Your task to perform on an android device: open a new tab in the chrome app Image 0: 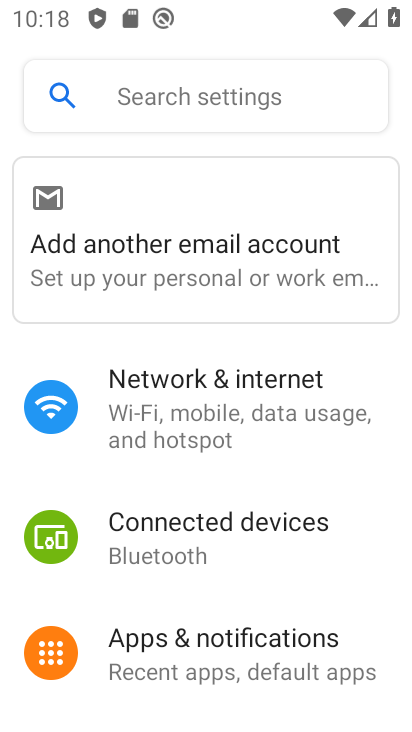
Step 0: press home button
Your task to perform on an android device: open a new tab in the chrome app Image 1: 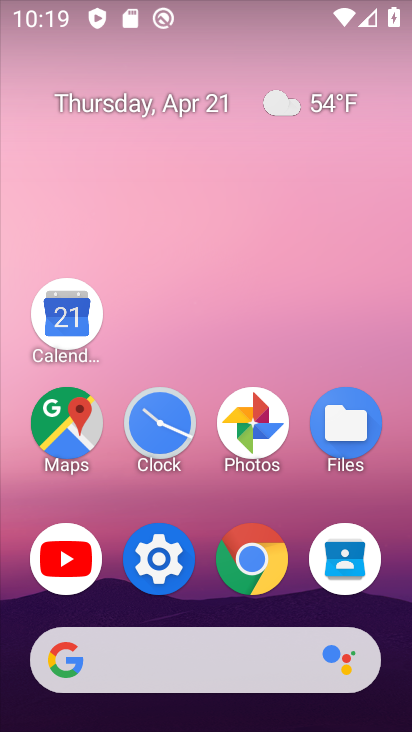
Step 1: click (248, 553)
Your task to perform on an android device: open a new tab in the chrome app Image 2: 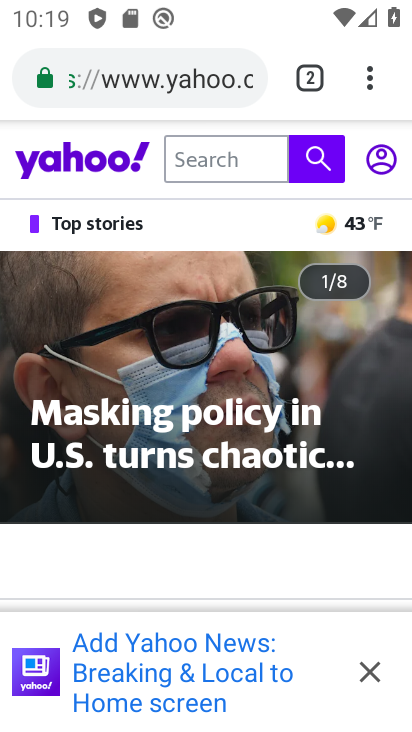
Step 2: click (371, 79)
Your task to perform on an android device: open a new tab in the chrome app Image 3: 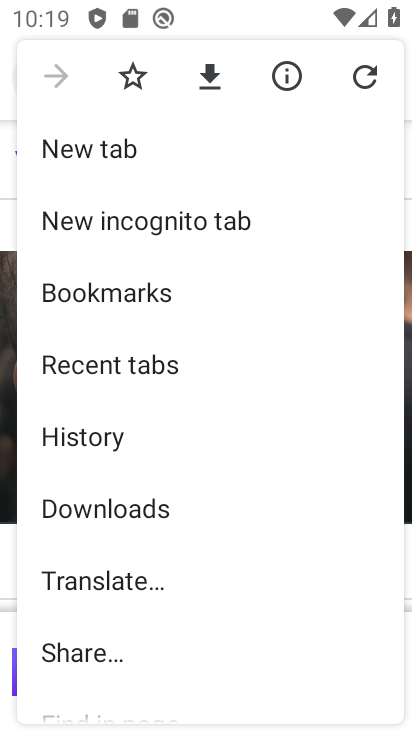
Step 3: click (124, 154)
Your task to perform on an android device: open a new tab in the chrome app Image 4: 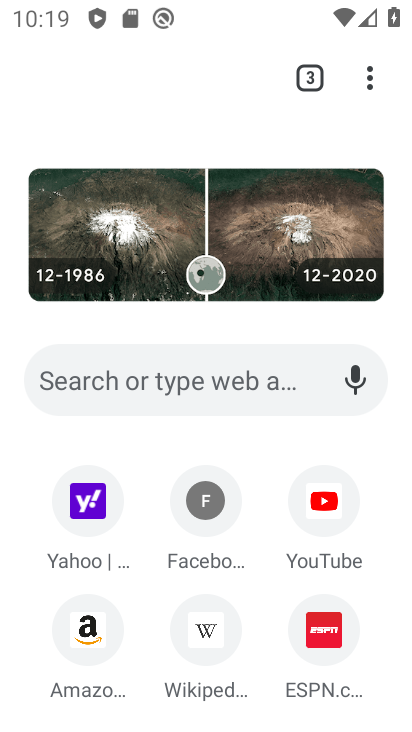
Step 4: task complete